Your task to perform on an android device: Open the stopwatch Image 0: 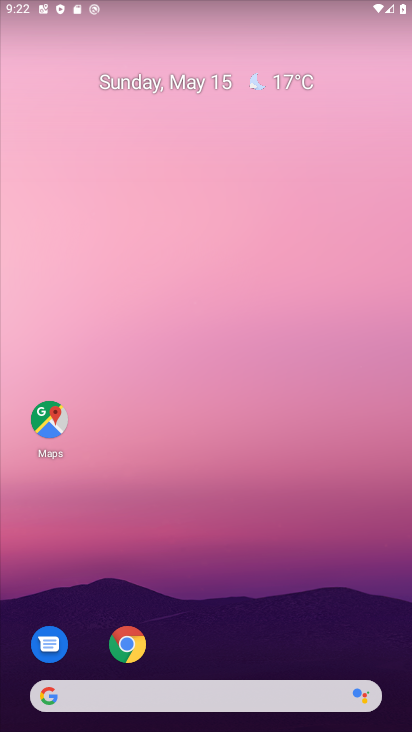
Step 0: drag from (297, 685) to (298, 203)
Your task to perform on an android device: Open the stopwatch Image 1: 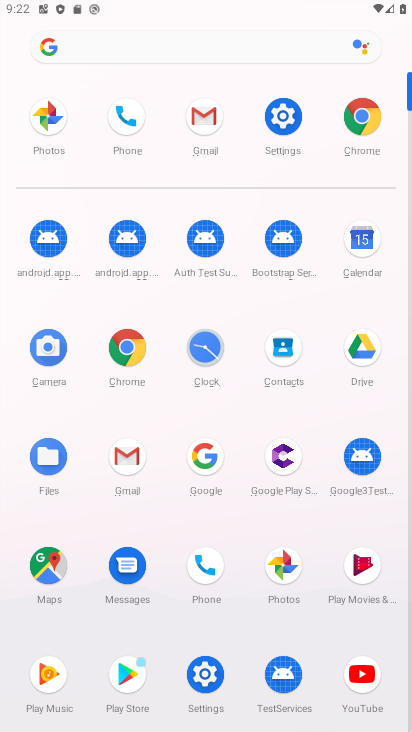
Step 1: click (208, 670)
Your task to perform on an android device: Open the stopwatch Image 2: 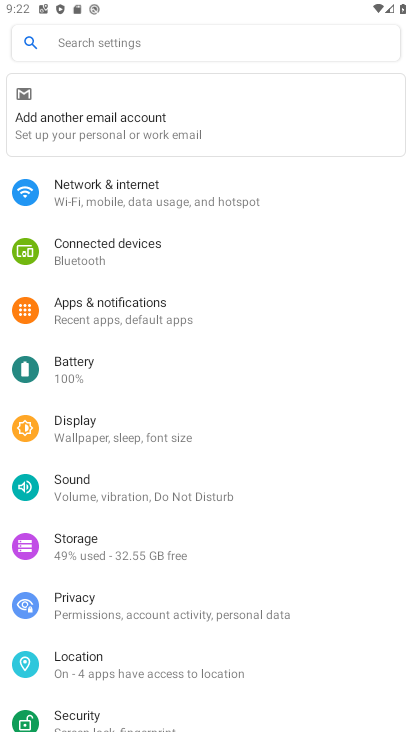
Step 2: press home button
Your task to perform on an android device: Open the stopwatch Image 3: 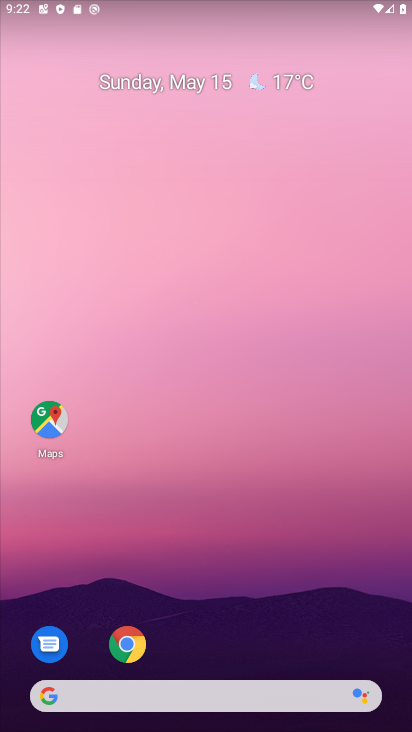
Step 3: drag from (226, 711) to (232, 135)
Your task to perform on an android device: Open the stopwatch Image 4: 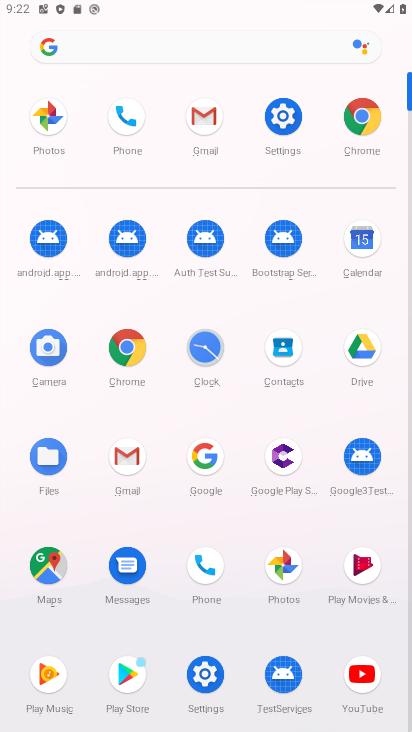
Step 4: click (191, 335)
Your task to perform on an android device: Open the stopwatch Image 5: 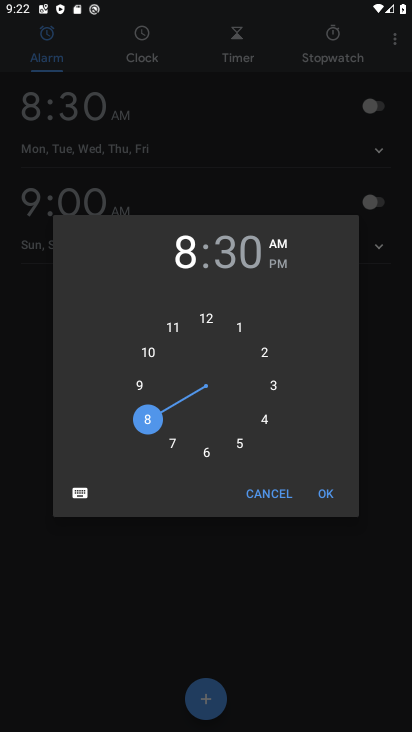
Step 5: click (285, 489)
Your task to perform on an android device: Open the stopwatch Image 6: 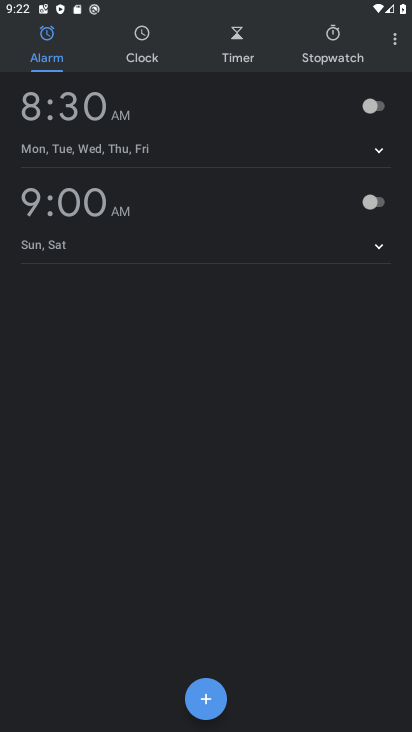
Step 6: click (317, 56)
Your task to perform on an android device: Open the stopwatch Image 7: 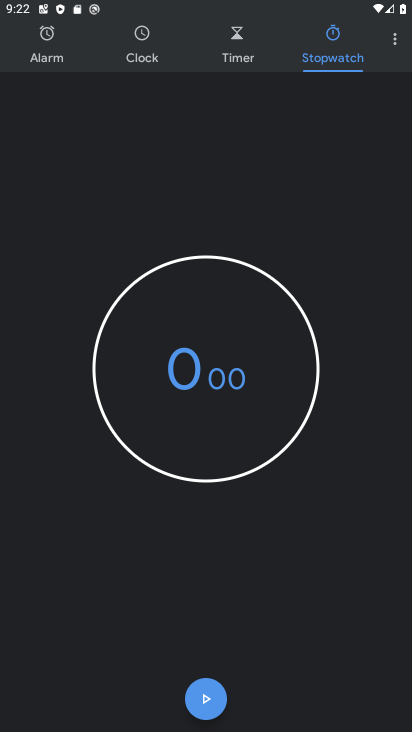
Step 7: task complete